Your task to perform on an android device: allow notifications from all sites in the chrome app Image 0: 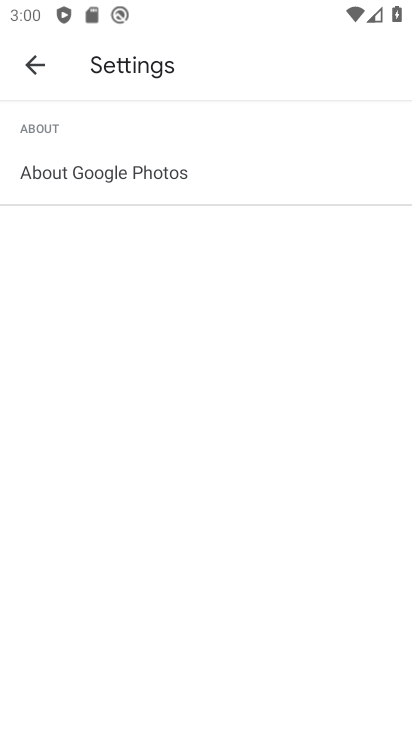
Step 0: press home button
Your task to perform on an android device: allow notifications from all sites in the chrome app Image 1: 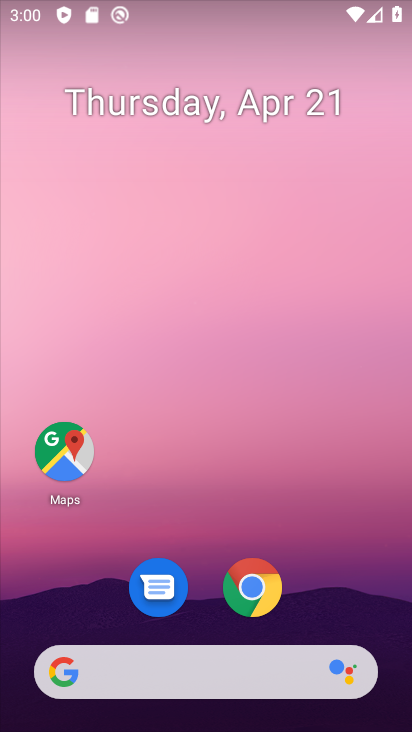
Step 1: click (284, 603)
Your task to perform on an android device: allow notifications from all sites in the chrome app Image 2: 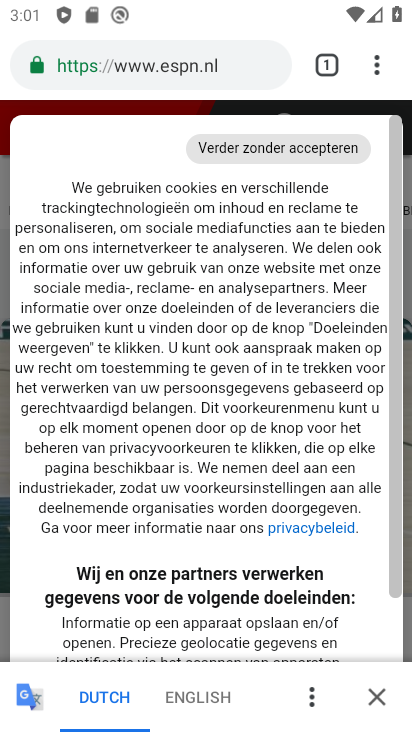
Step 2: drag from (375, 62) to (145, 636)
Your task to perform on an android device: allow notifications from all sites in the chrome app Image 3: 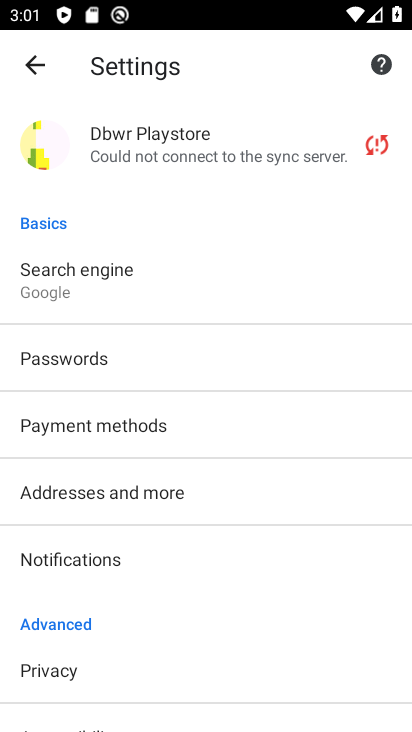
Step 3: click (65, 564)
Your task to perform on an android device: allow notifications from all sites in the chrome app Image 4: 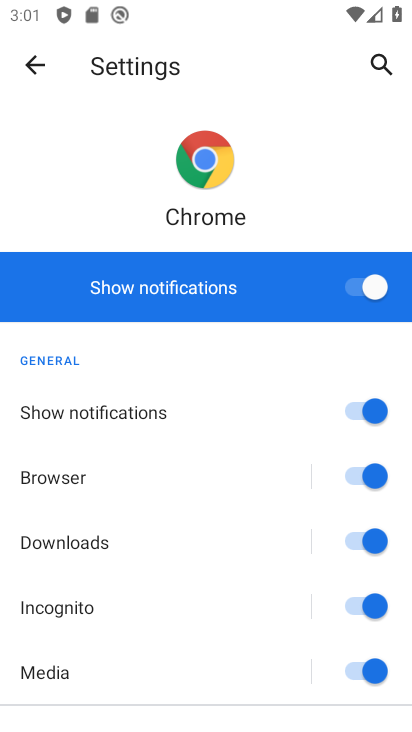
Step 4: task complete